Your task to perform on an android device: turn on airplane mode Image 0: 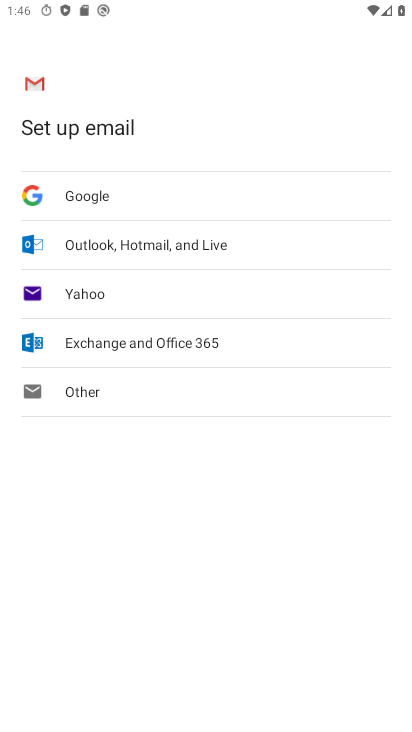
Step 0: press home button
Your task to perform on an android device: turn on airplane mode Image 1: 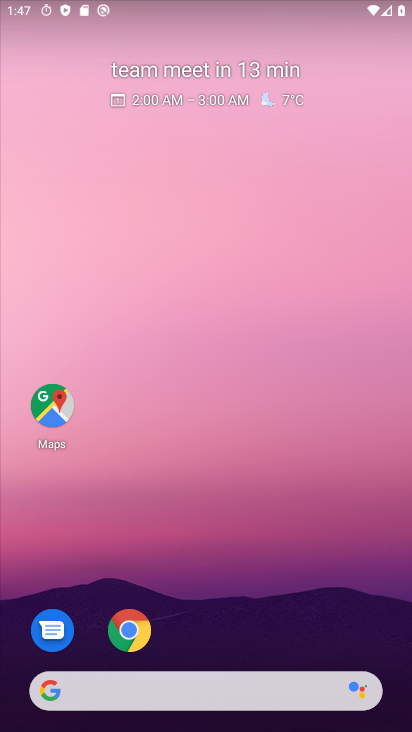
Step 1: drag from (176, 7) to (186, 248)
Your task to perform on an android device: turn on airplane mode Image 2: 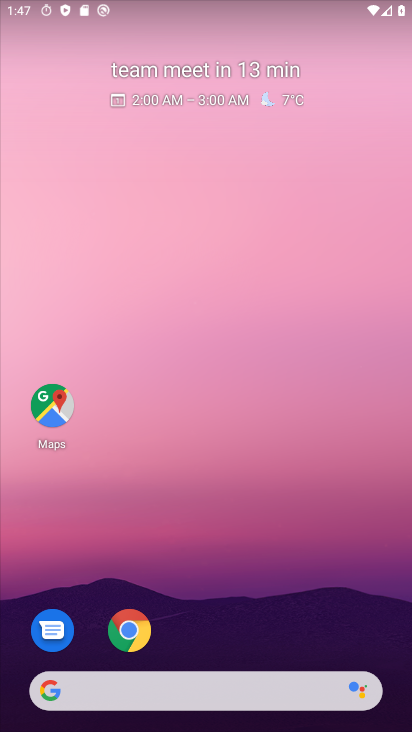
Step 2: drag from (195, 4) to (272, 441)
Your task to perform on an android device: turn on airplane mode Image 3: 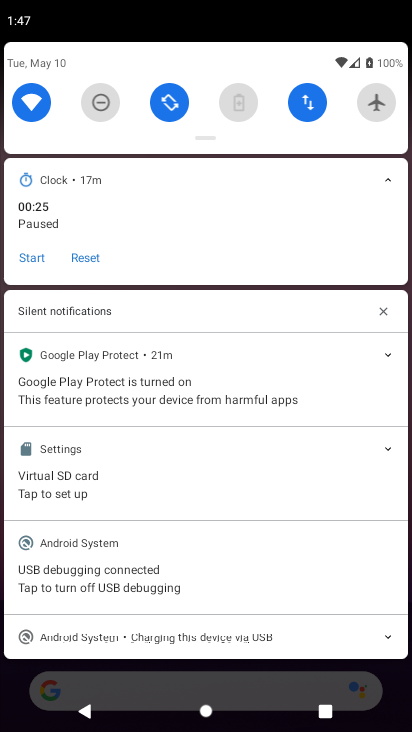
Step 3: click (382, 100)
Your task to perform on an android device: turn on airplane mode Image 4: 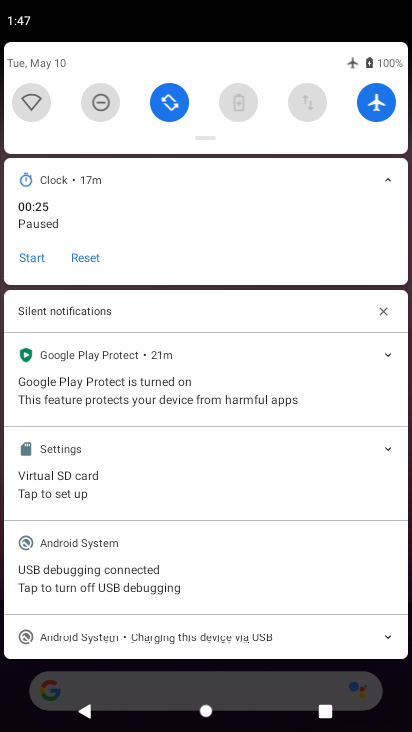
Step 4: task complete